Your task to perform on an android device: Open Google Chrome Image 0: 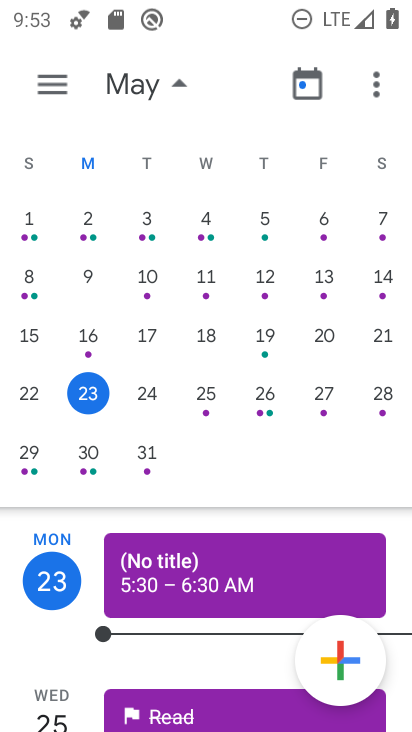
Step 0: press home button
Your task to perform on an android device: Open Google Chrome Image 1: 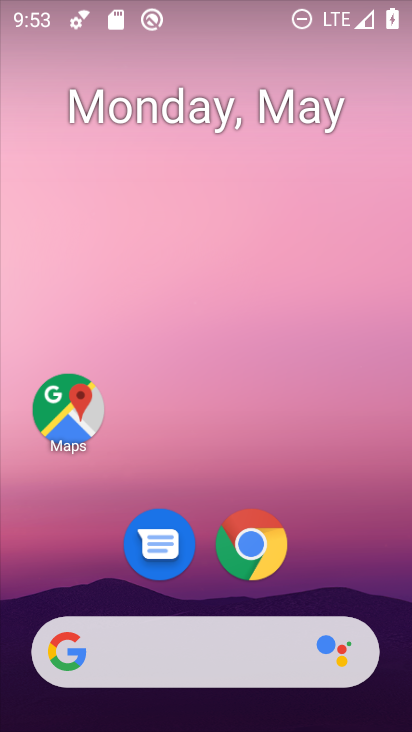
Step 1: drag from (373, 534) to (336, 101)
Your task to perform on an android device: Open Google Chrome Image 2: 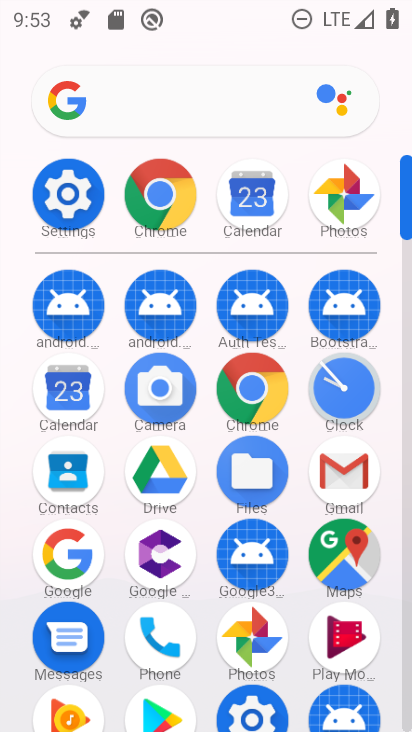
Step 2: click (258, 402)
Your task to perform on an android device: Open Google Chrome Image 3: 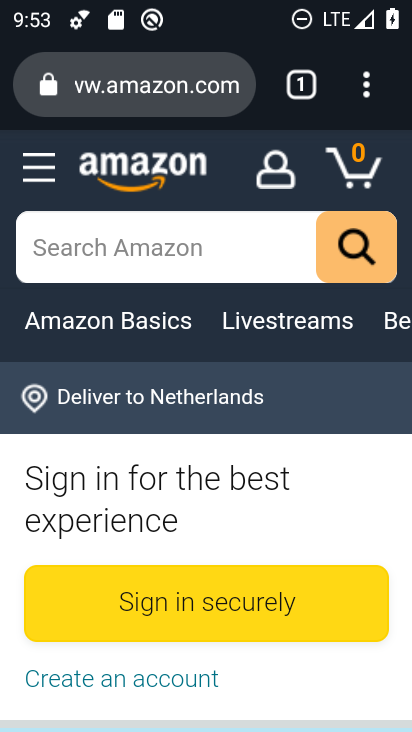
Step 3: task complete